Your task to perform on an android device: open chrome and create a bookmark for the current page Image 0: 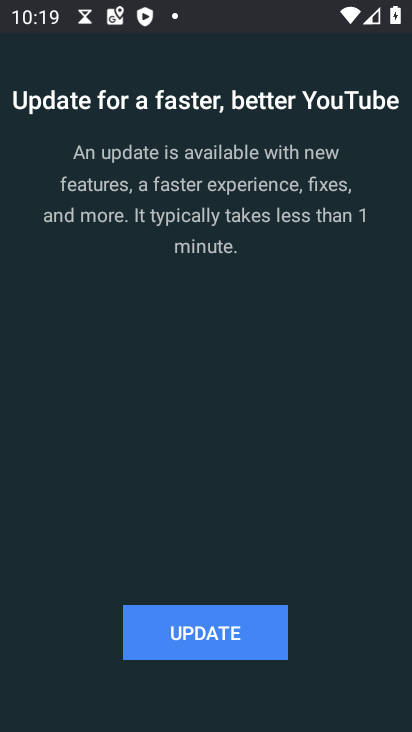
Step 0: press back button
Your task to perform on an android device: open chrome and create a bookmark for the current page Image 1: 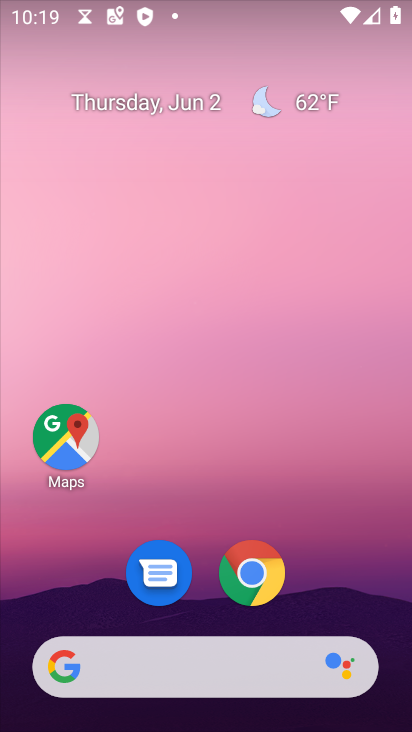
Step 1: click (252, 573)
Your task to perform on an android device: open chrome and create a bookmark for the current page Image 2: 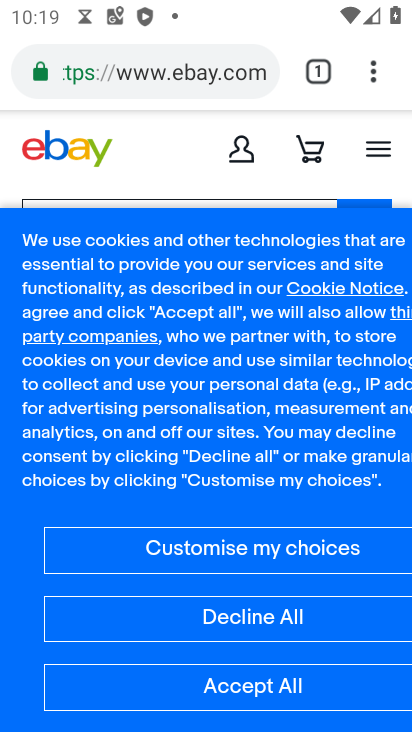
Step 2: click (371, 71)
Your task to perform on an android device: open chrome and create a bookmark for the current page Image 3: 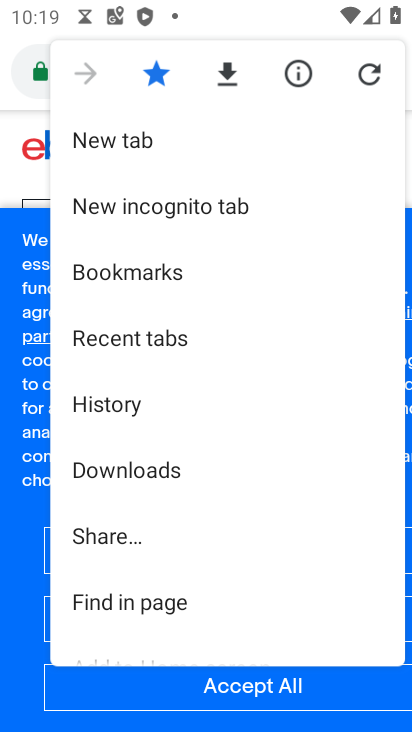
Step 3: task complete